Your task to perform on an android device: toggle pop-ups in chrome Image 0: 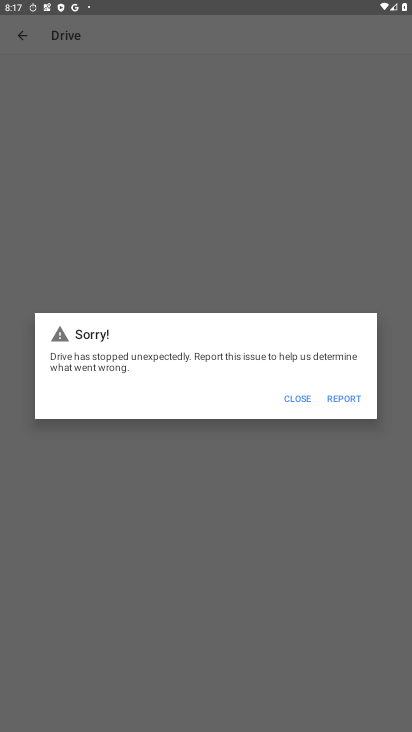
Step 0: click (289, 396)
Your task to perform on an android device: toggle pop-ups in chrome Image 1: 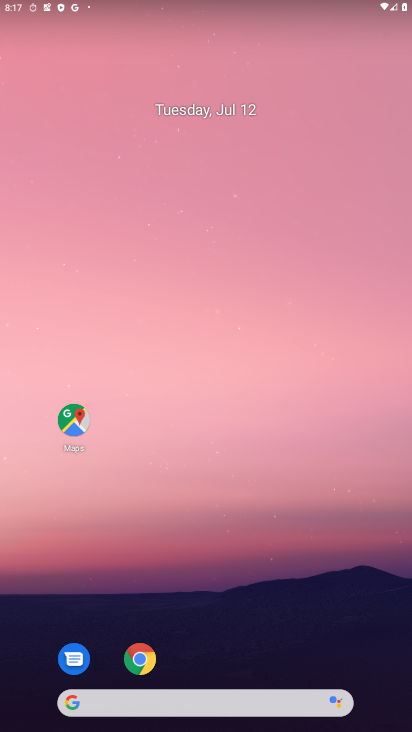
Step 1: drag from (253, 598) to (154, 273)
Your task to perform on an android device: toggle pop-ups in chrome Image 2: 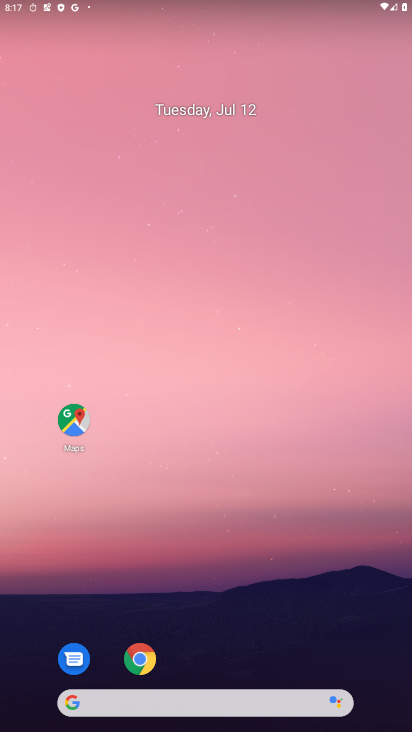
Step 2: drag from (277, 646) to (159, 124)
Your task to perform on an android device: toggle pop-ups in chrome Image 3: 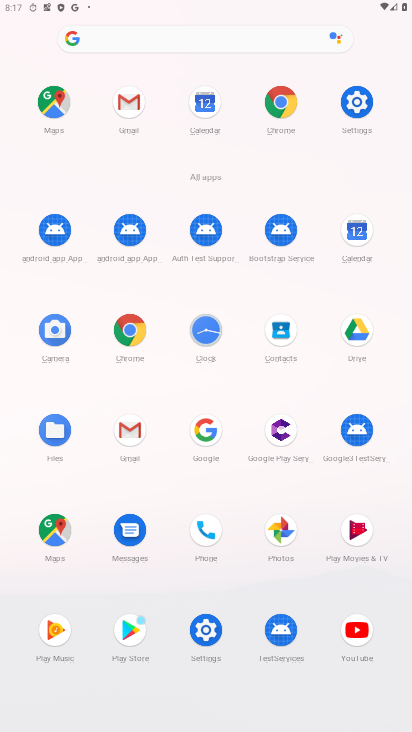
Step 3: click (129, 342)
Your task to perform on an android device: toggle pop-ups in chrome Image 4: 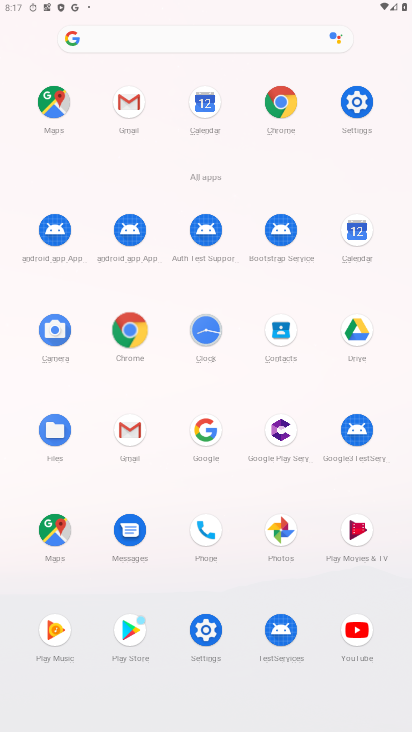
Step 4: click (129, 342)
Your task to perform on an android device: toggle pop-ups in chrome Image 5: 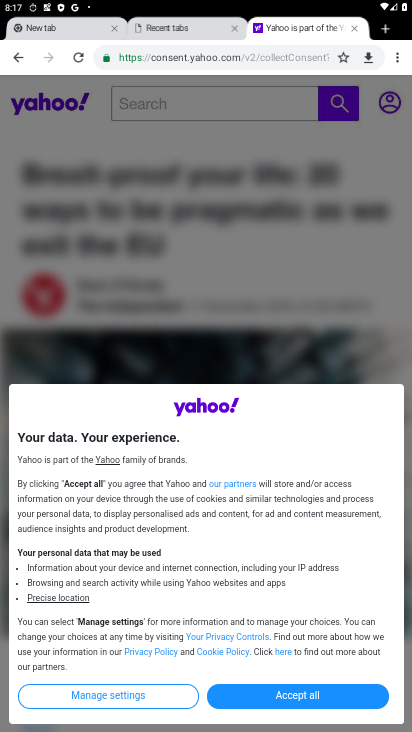
Step 5: press back button
Your task to perform on an android device: toggle pop-ups in chrome Image 6: 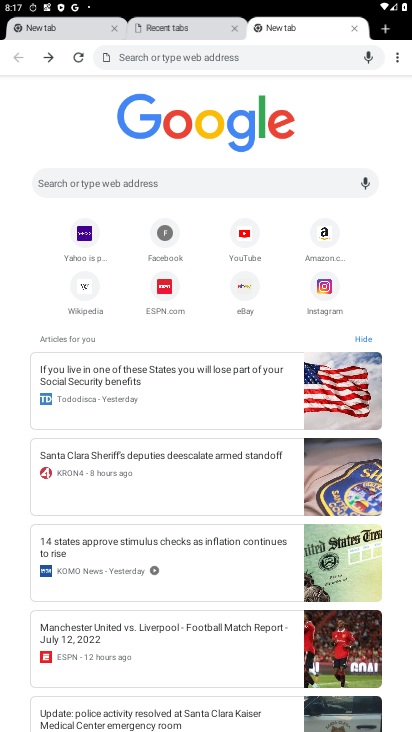
Step 6: click (396, 54)
Your task to perform on an android device: toggle pop-ups in chrome Image 7: 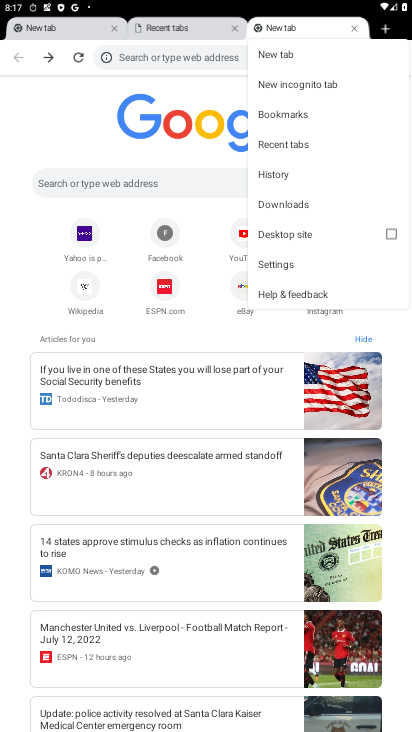
Step 7: click (265, 265)
Your task to perform on an android device: toggle pop-ups in chrome Image 8: 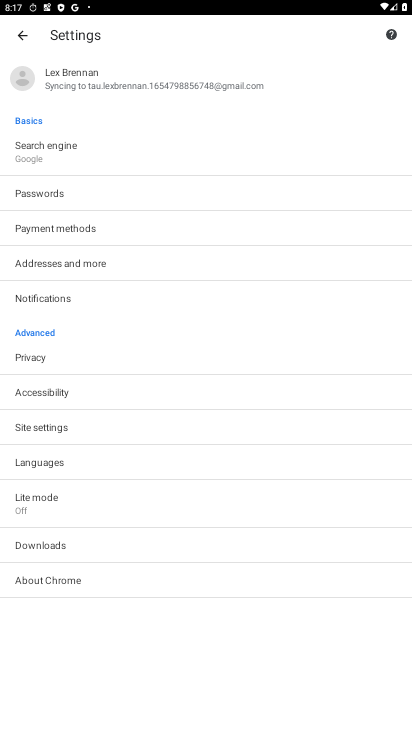
Step 8: click (35, 422)
Your task to perform on an android device: toggle pop-ups in chrome Image 9: 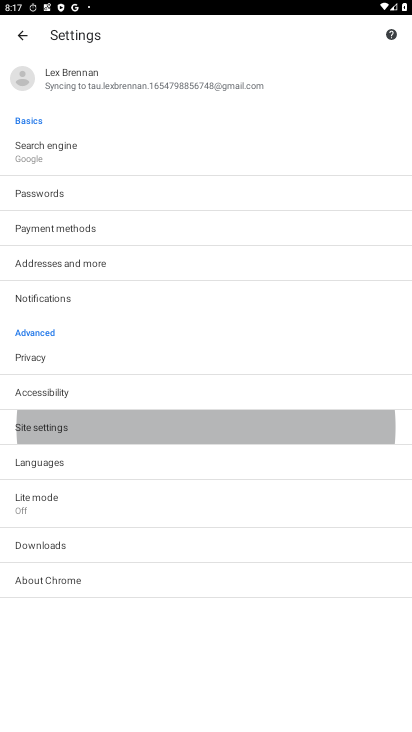
Step 9: click (34, 421)
Your task to perform on an android device: toggle pop-ups in chrome Image 10: 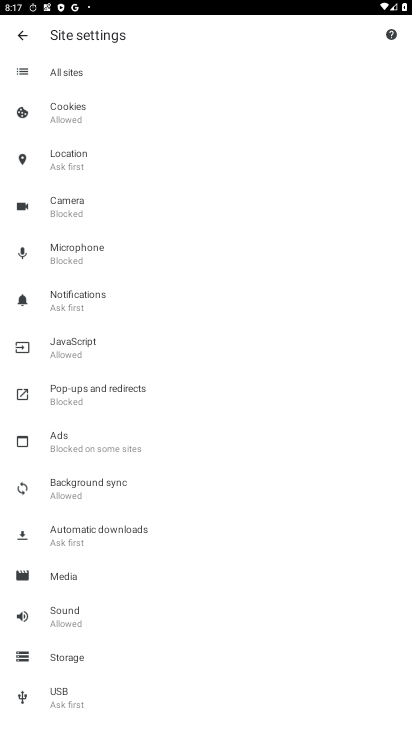
Step 10: click (73, 400)
Your task to perform on an android device: toggle pop-ups in chrome Image 11: 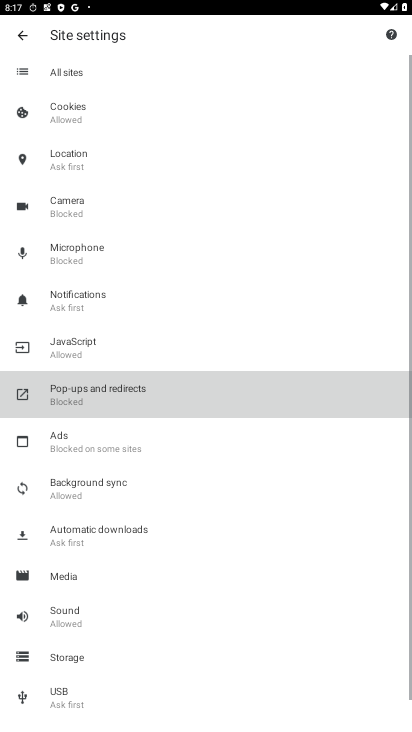
Step 11: click (75, 393)
Your task to perform on an android device: toggle pop-ups in chrome Image 12: 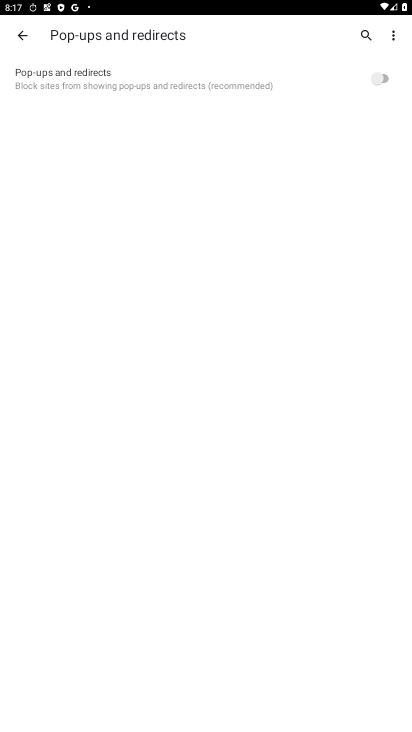
Step 12: click (376, 71)
Your task to perform on an android device: toggle pop-ups in chrome Image 13: 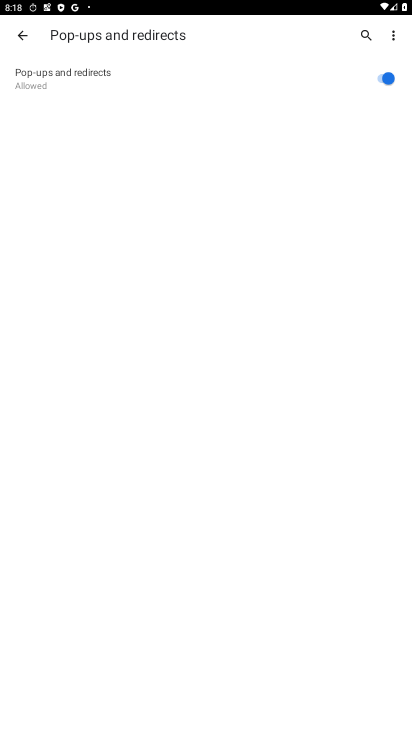
Step 13: task complete